Your task to perform on an android device: Go to Yahoo.com Image 0: 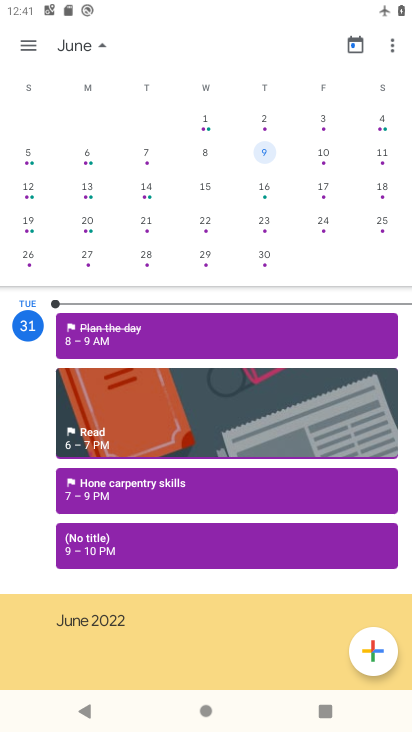
Step 0: press home button
Your task to perform on an android device: Go to Yahoo.com Image 1: 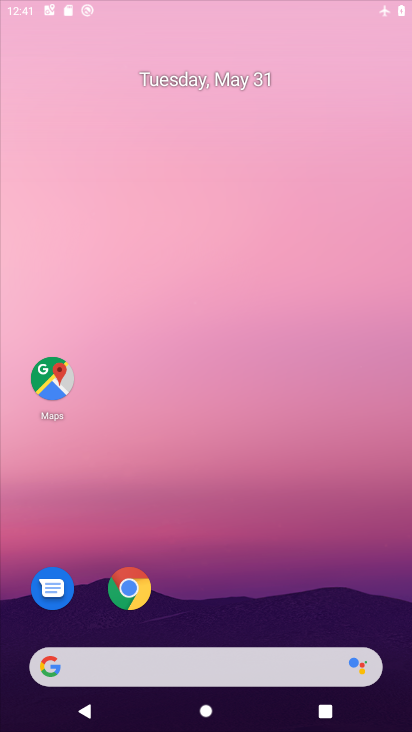
Step 1: drag from (323, 536) to (352, 8)
Your task to perform on an android device: Go to Yahoo.com Image 2: 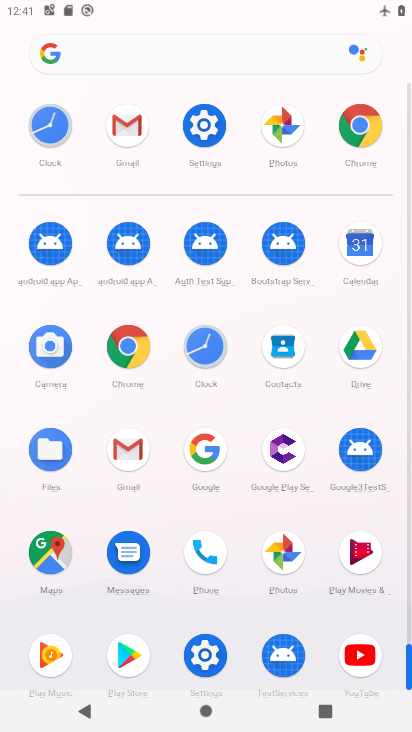
Step 2: click (115, 350)
Your task to perform on an android device: Go to Yahoo.com Image 3: 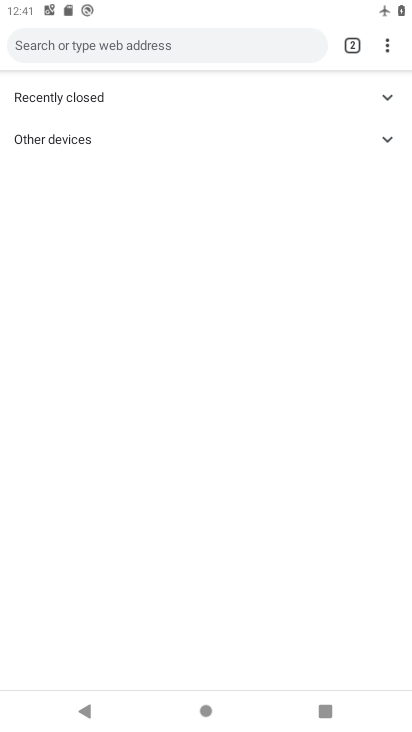
Step 3: click (164, 62)
Your task to perform on an android device: Go to Yahoo.com Image 4: 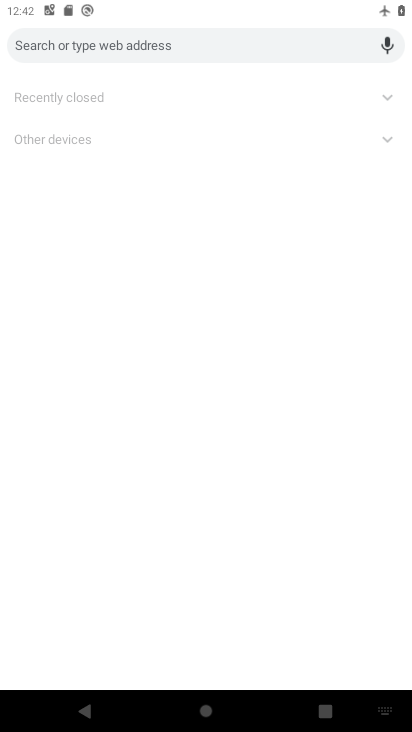
Step 4: type "yahoo.com"
Your task to perform on an android device: Go to Yahoo.com Image 5: 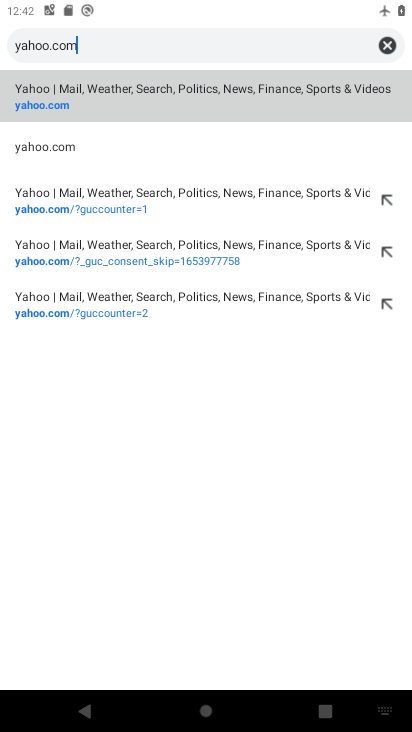
Step 5: click (149, 95)
Your task to perform on an android device: Go to Yahoo.com Image 6: 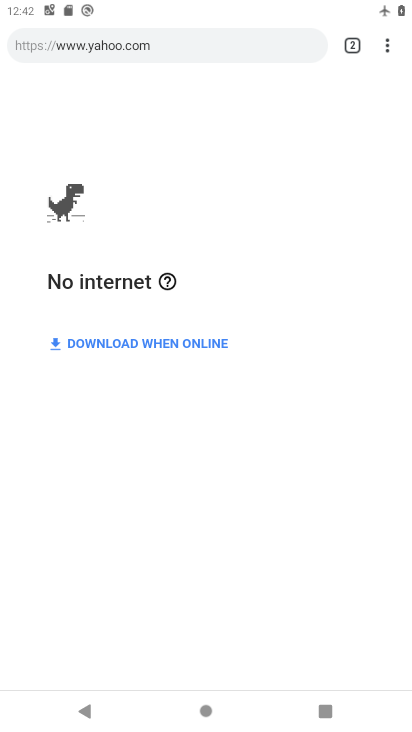
Step 6: task complete